Your task to perform on an android device: change the clock display to analog Image 0: 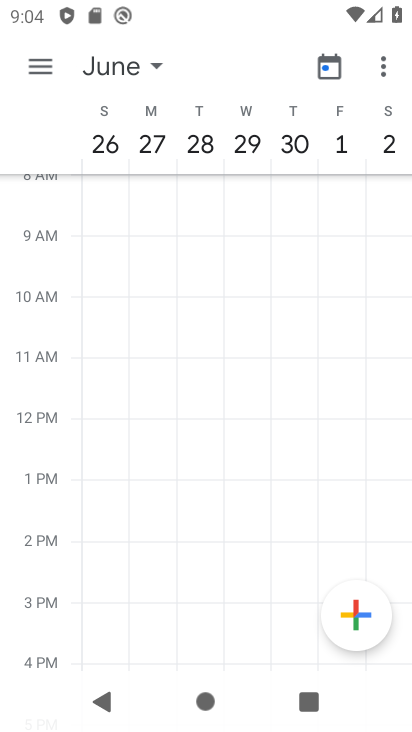
Step 0: press home button
Your task to perform on an android device: change the clock display to analog Image 1: 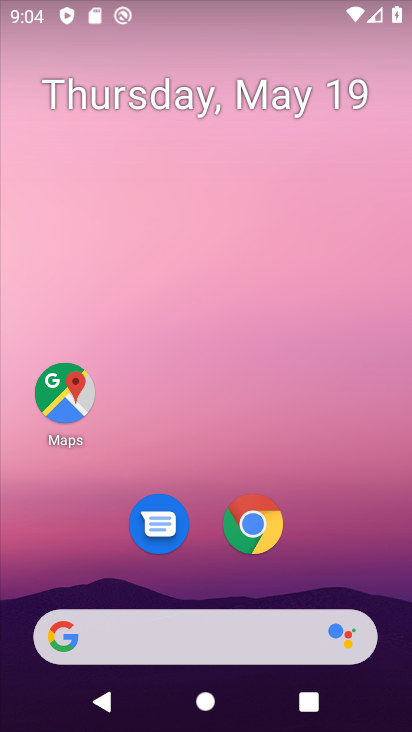
Step 1: drag from (223, 440) to (243, 36)
Your task to perform on an android device: change the clock display to analog Image 2: 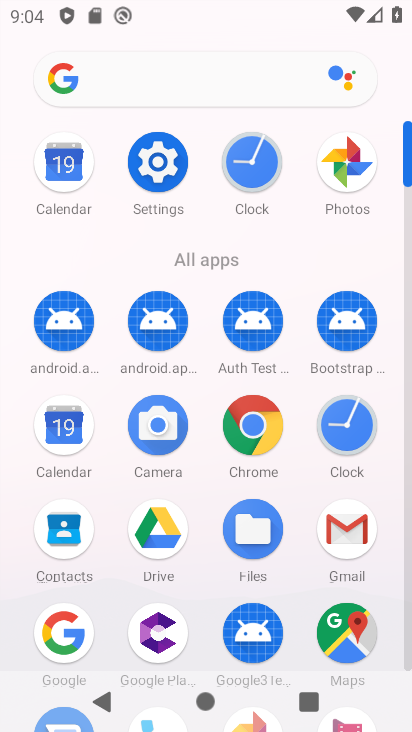
Step 2: click (254, 157)
Your task to perform on an android device: change the clock display to analog Image 3: 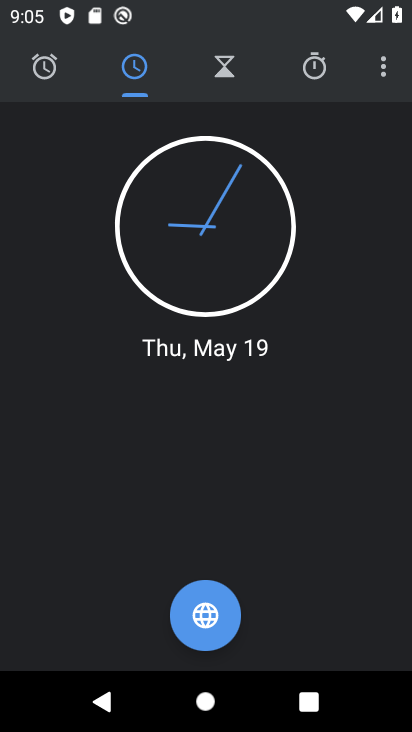
Step 3: task complete